Your task to perform on an android device: Open my contact list Image 0: 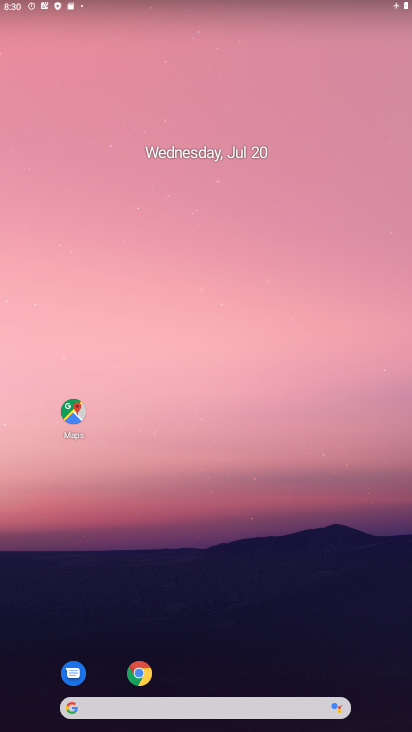
Step 0: drag from (386, 663) to (175, 7)
Your task to perform on an android device: Open my contact list Image 1: 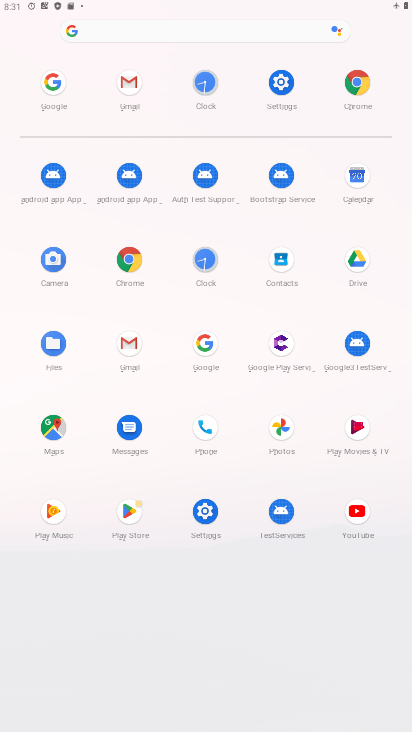
Step 1: click (286, 264)
Your task to perform on an android device: Open my contact list Image 2: 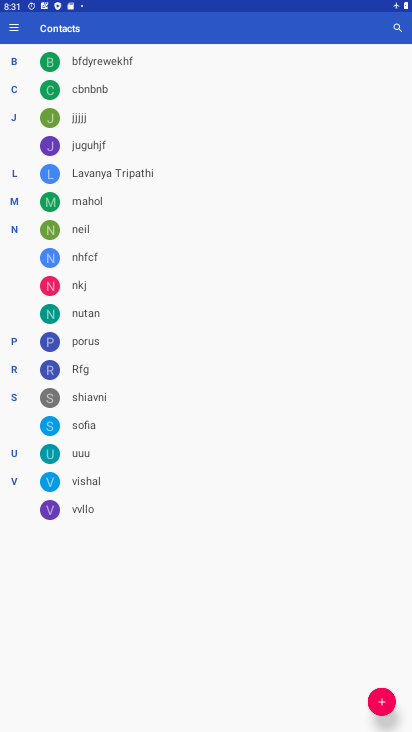
Step 2: task complete